Your task to perform on an android device: Check the news Image 0: 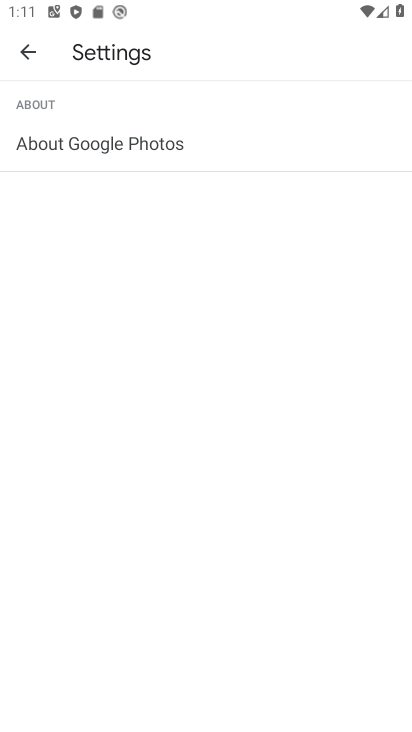
Step 0: task complete